Your task to perform on an android device: turn smart compose on in the gmail app Image 0: 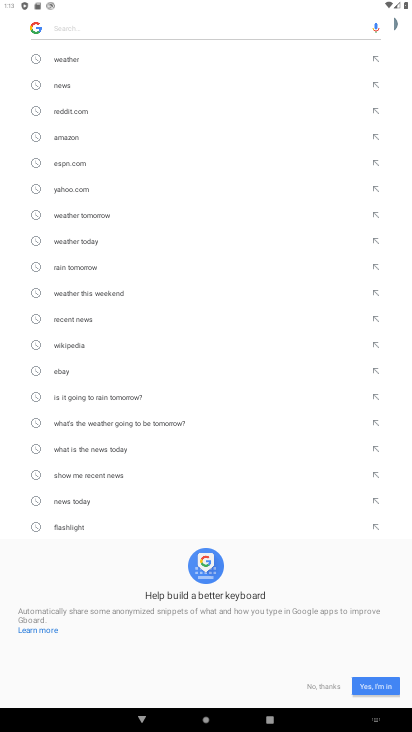
Step 0: press home button
Your task to perform on an android device: turn smart compose on in the gmail app Image 1: 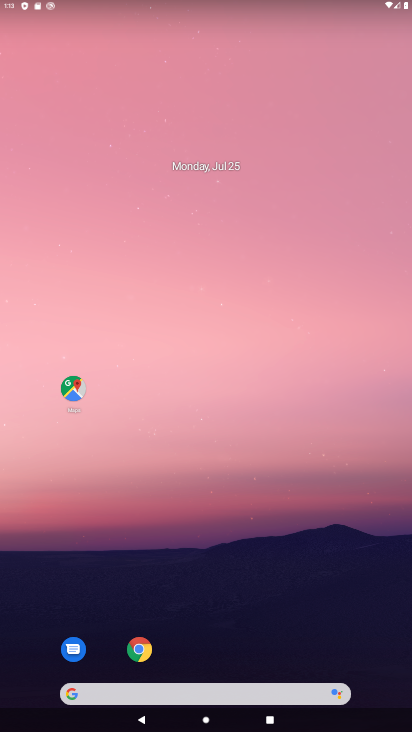
Step 1: drag from (327, 674) to (224, 214)
Your task to perform on an android device: turn smart compose on in the gmail app Image 2: 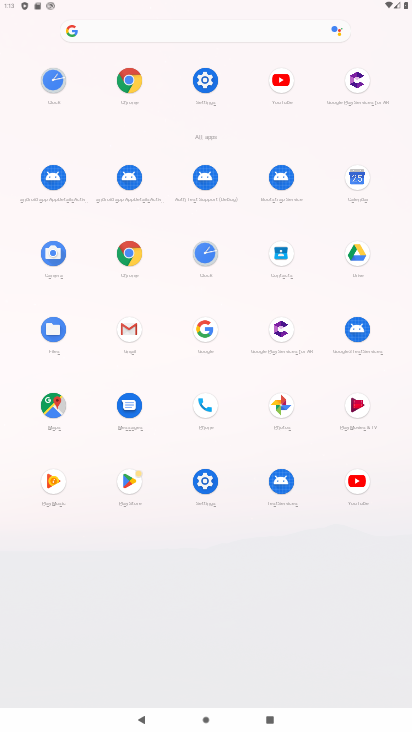
Step 2: drag from (129, 329) to (317, 653)
Your task to perform on an android device: turn smart compose on in the gmail app Image 3: 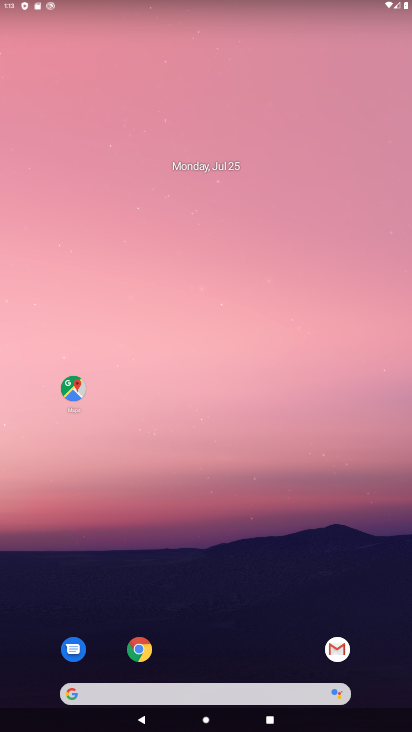
Step 3: click (342, 651)
Your task to perform on an android device: turn smart compose on in the gmail app Image 4: 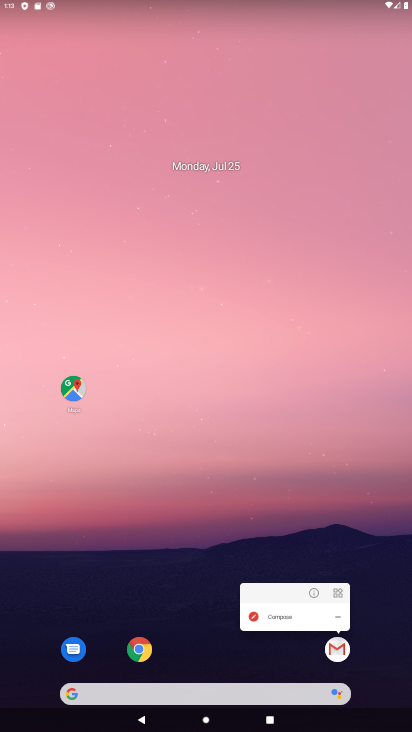
Step 4: click (337, 652)
Your task to perform on an android device: turn smart compose on in the gmail app Image 5: 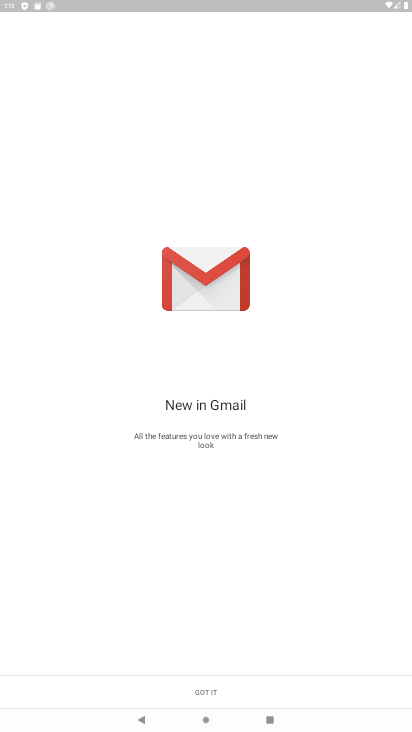
Step 5: click (214, 685)
Your task to perform on an android device: turn smart compose on in the gmail app Image 6: 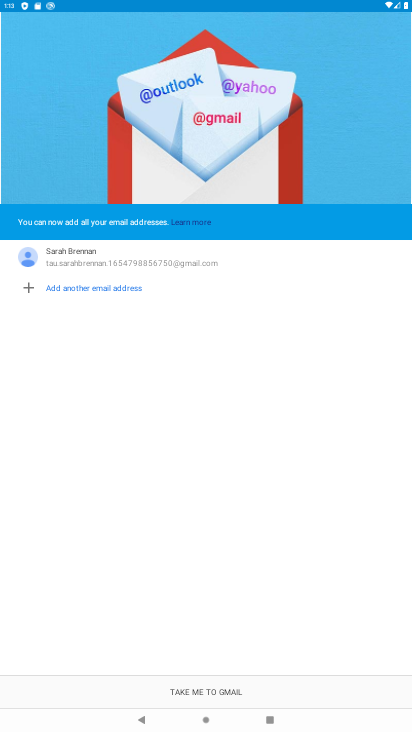
Step 6: click (214, 685)
Your task to perform on an android device: turn smart compose on in the gmail app Image 7: 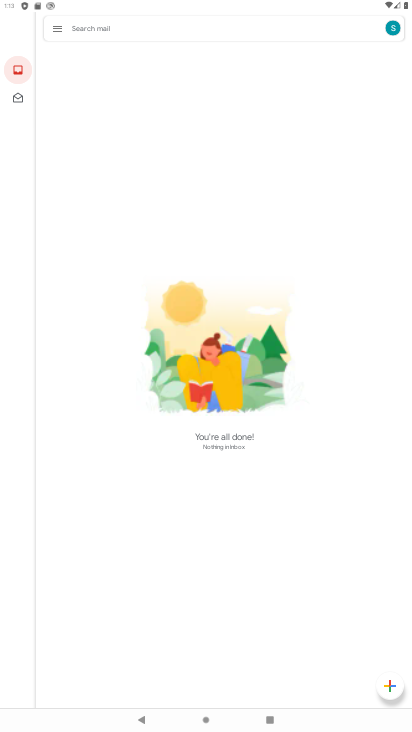
Step 7: click (52, 35)
Your task to perform on an android device: turn smart compose on in the gmail app Image 8: 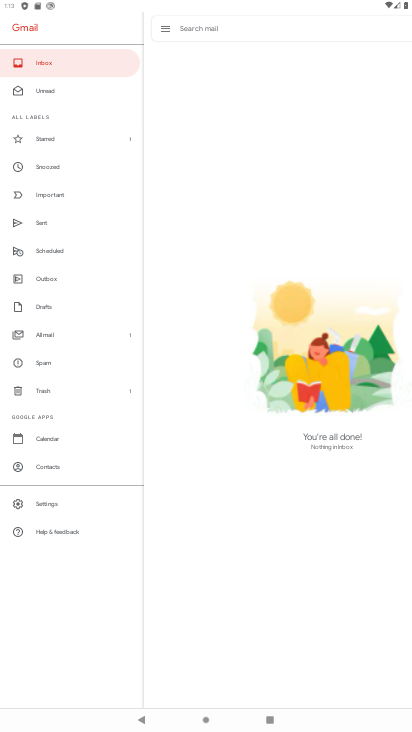
Step 8: click (47, 502)
Your task to perform on an android device: turn smart compose on in the gmail app Image 9: 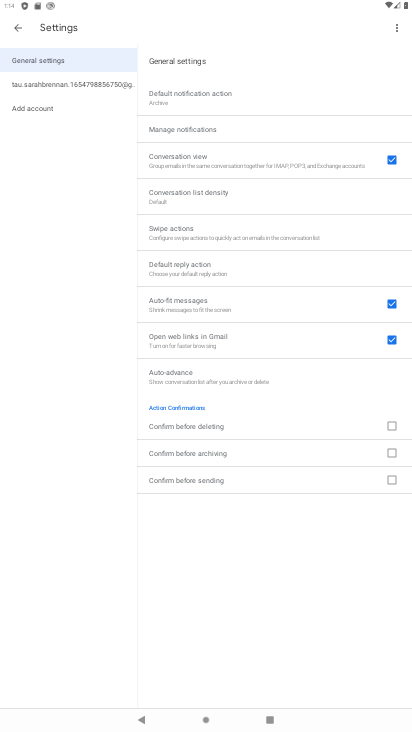
Step 9: click (42, 95)
Your task to perform on an android device: turn smart compose on in the gmail app Image 10: 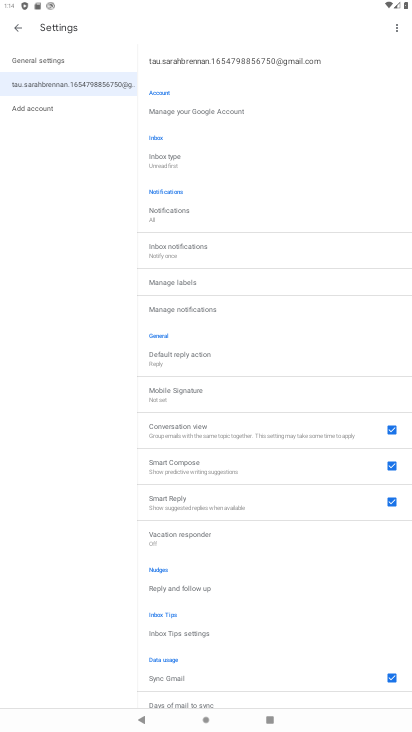
Step 10: click (279, 468)
Your task to perform on an android device: turn smart compose on in the gmail app Image 11: 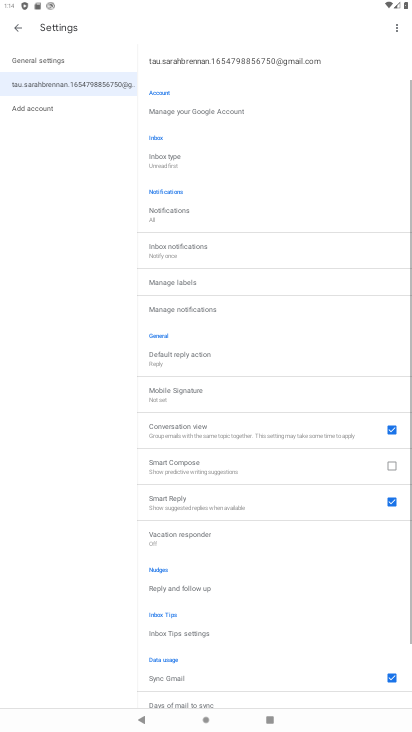
Step 11: click (285, 467)
Your task to perform on an android device: turn smart compose on in the gmail app Image 12: 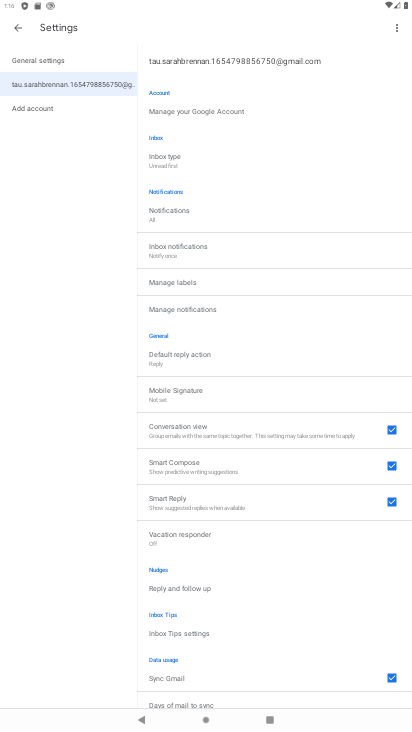
Step 12: task complete